Your task to perform on an android device: Open Android settings Image 0: 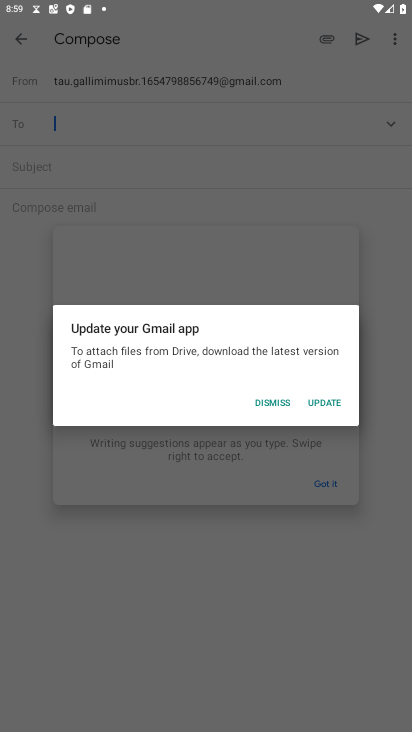
Step 0: press home button
Your task to perform on an android device: Open Android settings Image 1: 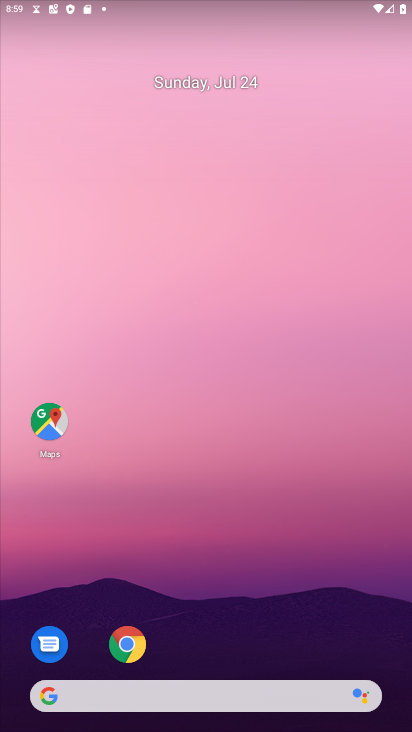
Step 1: drag from (314, 607) to (365, 1)
Your task to perform on an android device: Open Android settings Image 2: 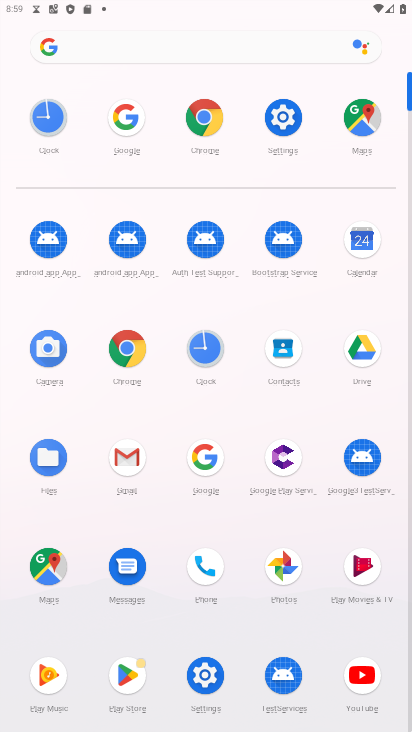
Step 2: click (211, 681)
Your task to perform on an android device: Open Android settings Image 3: 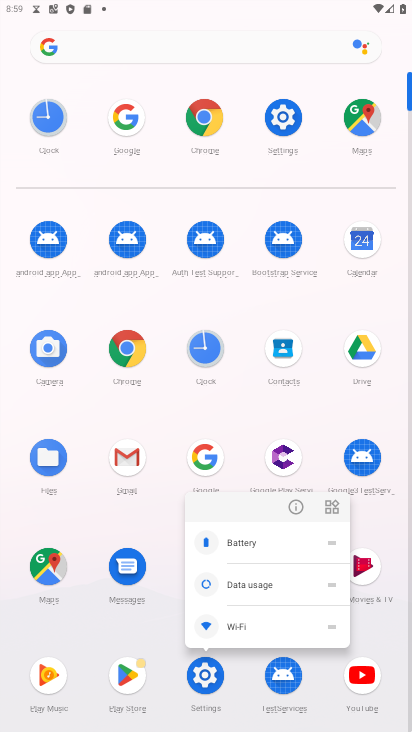
Step 3: click (193, 669)
Your task to perform on an android device: Open Android settings Image 4: 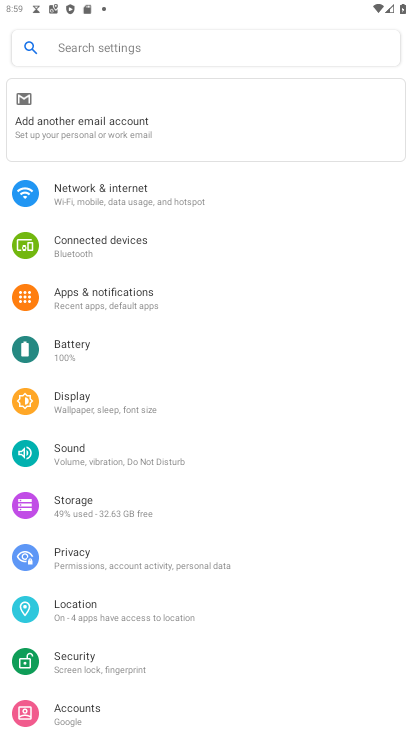
Step 4: drag from (148, 623) to (246, 163)
Your task to perform on an android device: Open Android settings Image 5: 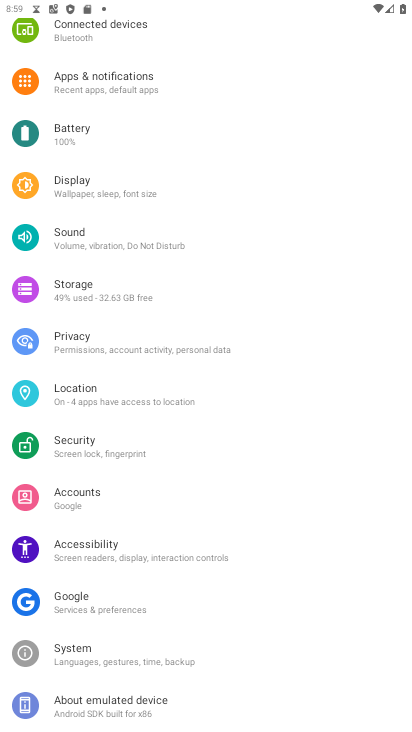
Step 5: click (90, 689)
Your task to perform on an android device: Open Android settings Image 6: 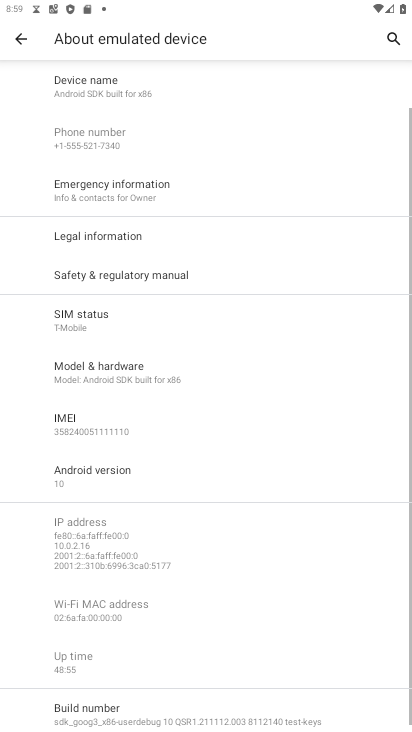
Step 6: drag from (258, 513) to (254, 63)
Your task to perform on an android device: Open Android settings Image 7: 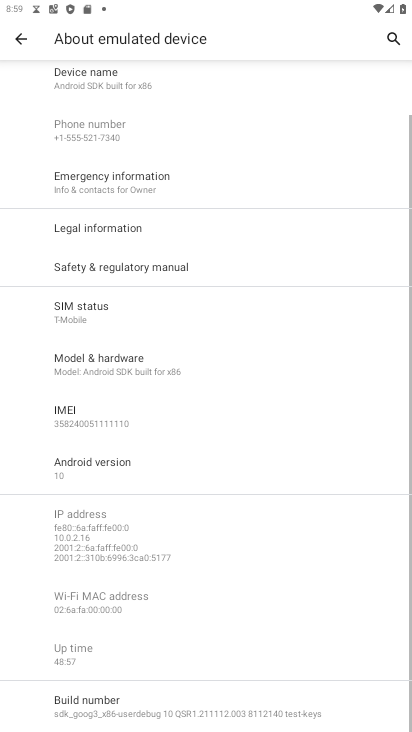
Step 7: click (108, 468)
Your task to perform on an android device: Open Android settings Image 8: 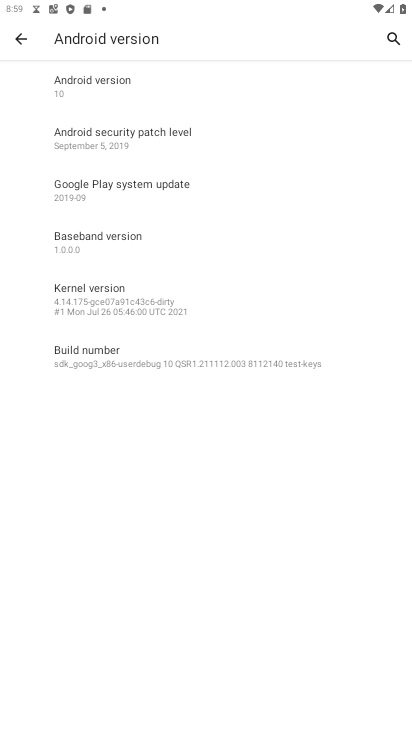
Step 8: task complete